Your task to perform on an android device: see sites visited before in the chrome app Image 0: 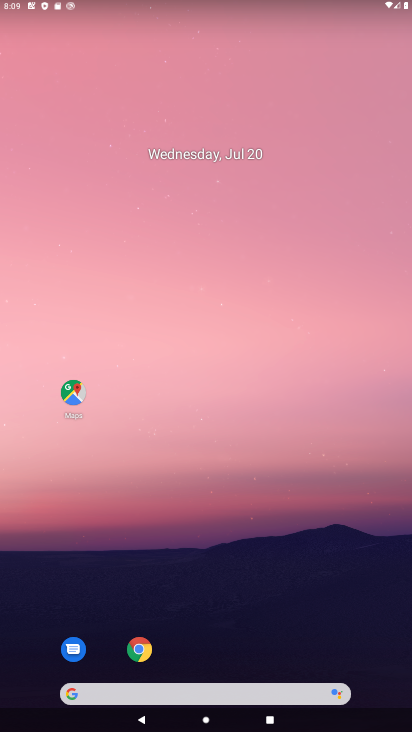
Step 0: click (144, 646)
Your task to perform on an android device: see sites visited before in the chrome app Image 1: 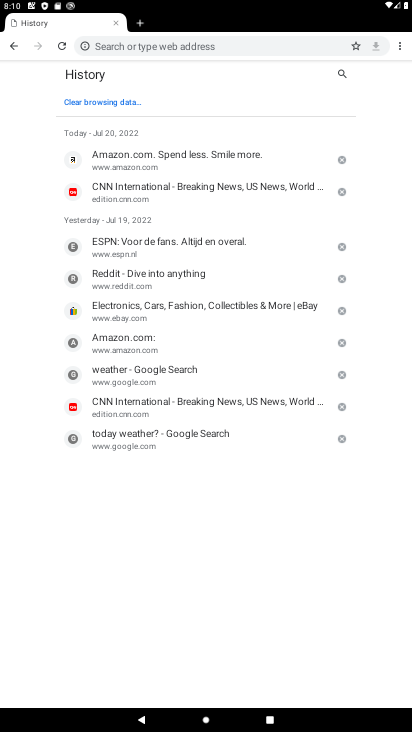
Step 1: task complete